Your task to perform on an android device: Go to accessibility settings Image 0: 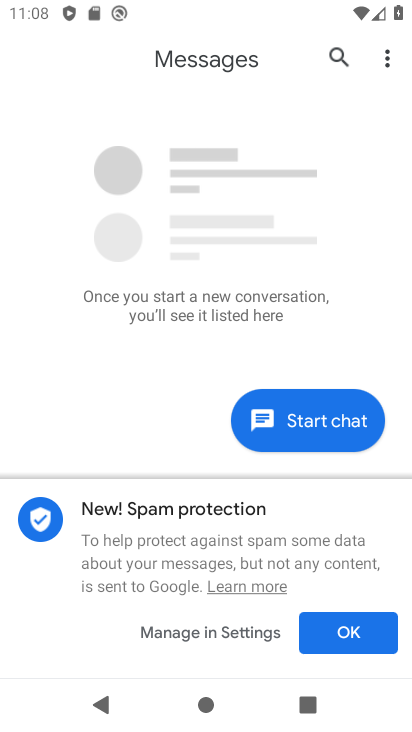
Step 0: press home button
Your task to perform on an android device: Go to accessibility settings Image 1: 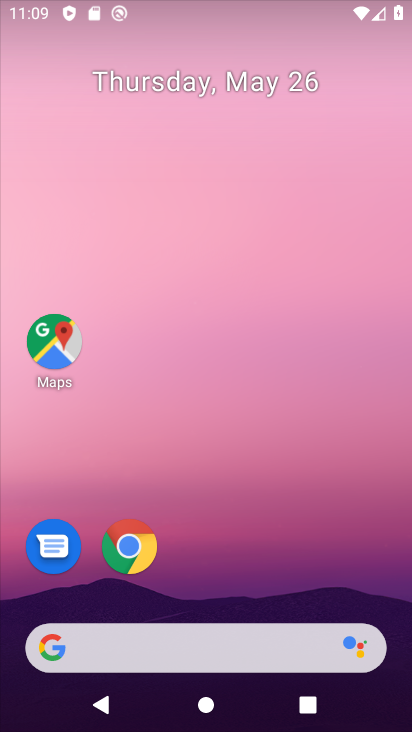
Step 1: drag from (195, 565) to (204, 41)
Your task to perform on an android device: Go to accessibility settings Image 2: 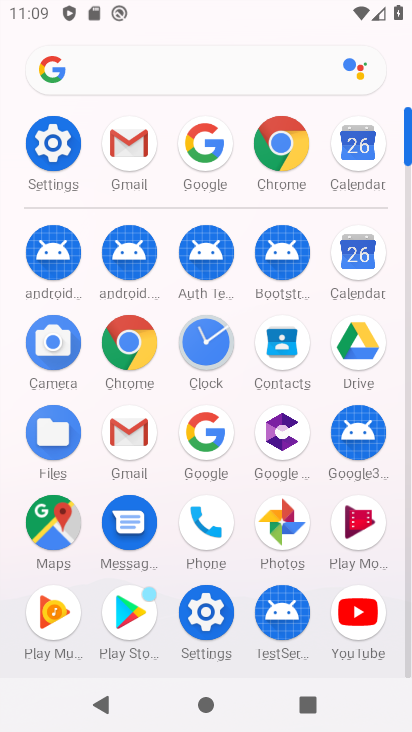
Step 2: click (58, 139)
Your task to perform on an android device: Go to accessibility settings Image 3: 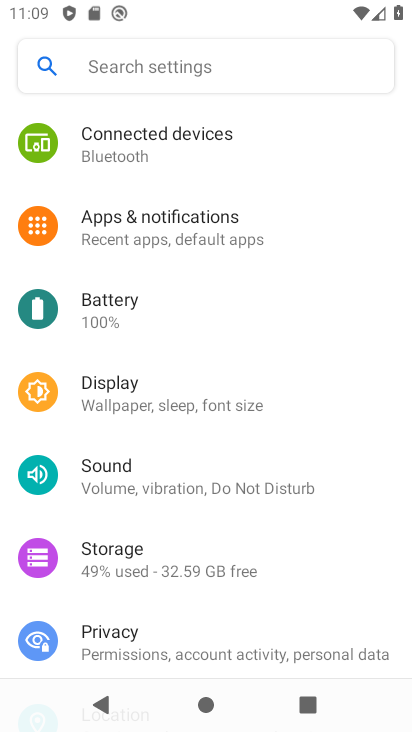
Step 3: drag from (250, 618) to (226, 116)
Your task to perform on an android device: Go to accessibility settings Image 4: 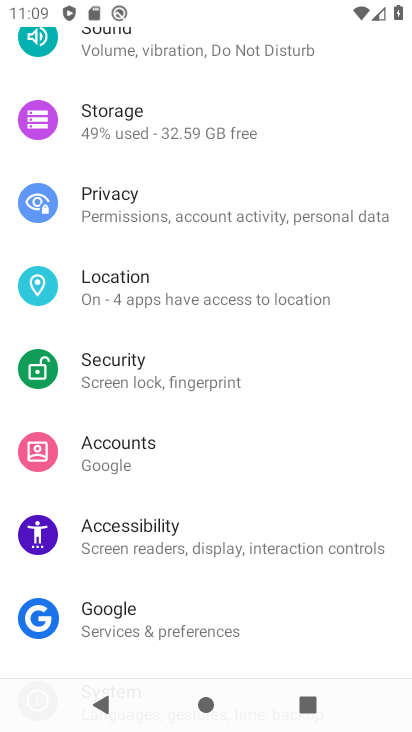
Step 4: click (149, 532)
Your task to perform on an android device: Go to accessibility settings Image 5: 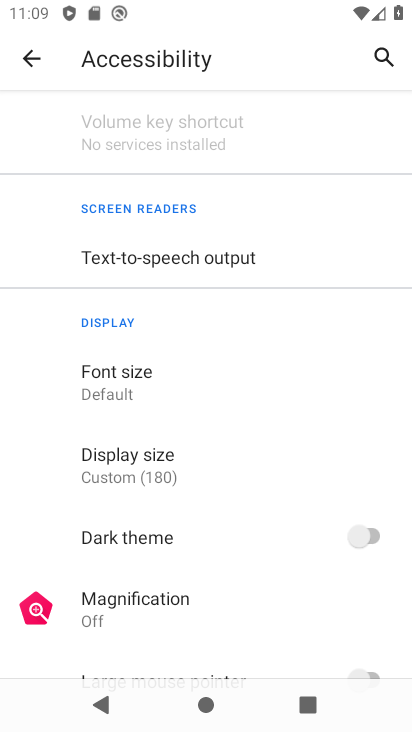
Step 5: task complete